Your task to perform on an android device: Open accessibility settings Image 0: 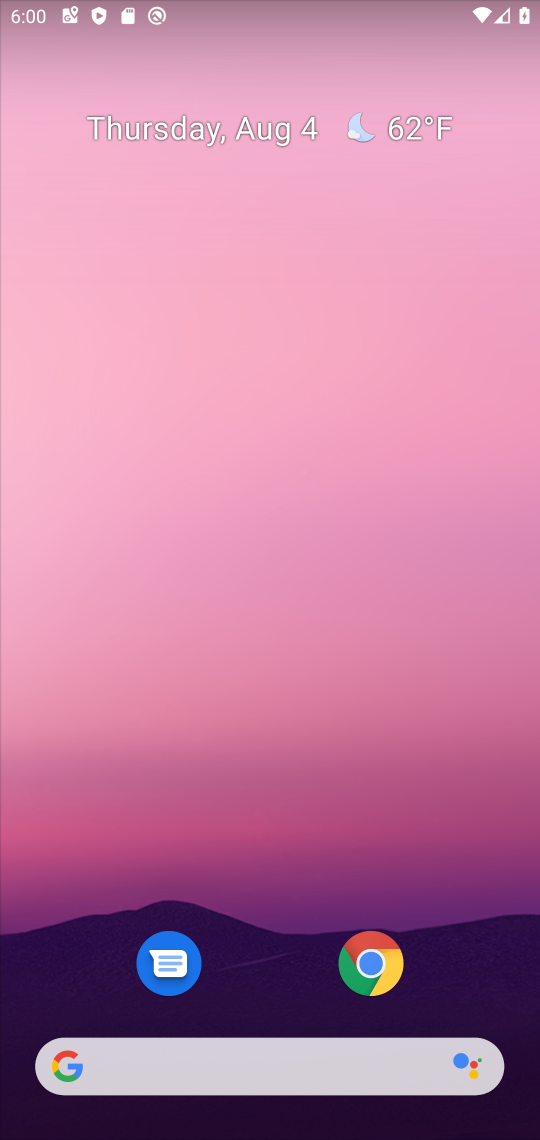
Step 0: drag from (280, 824) to (245, 53)
Your task to perform on an android device: Open accessibility settings Image 1: 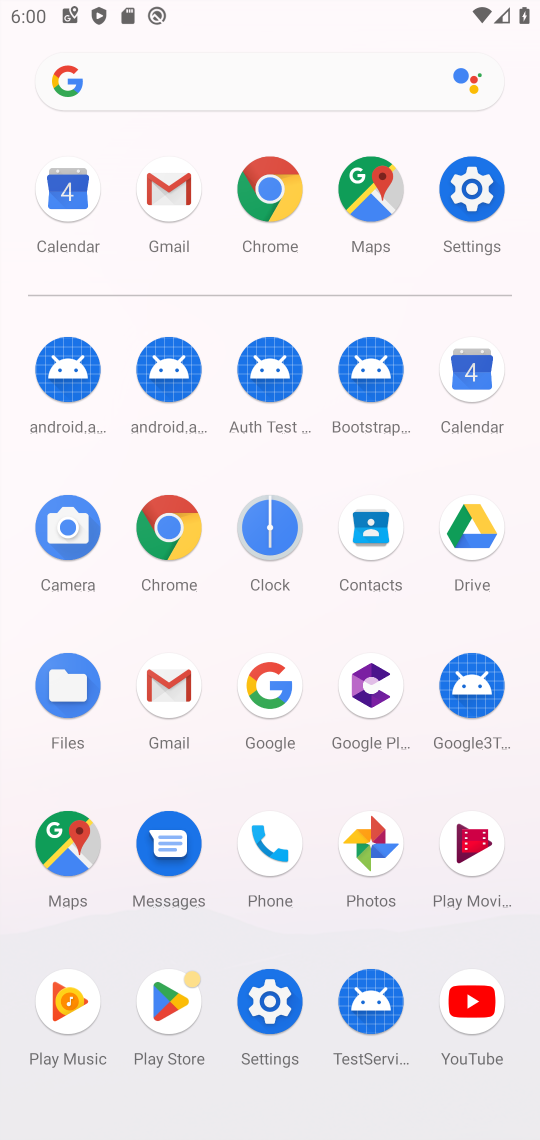
Step 1: click (474, 185)
Your task to perform on an android device: Open accessibility settings Image 2: 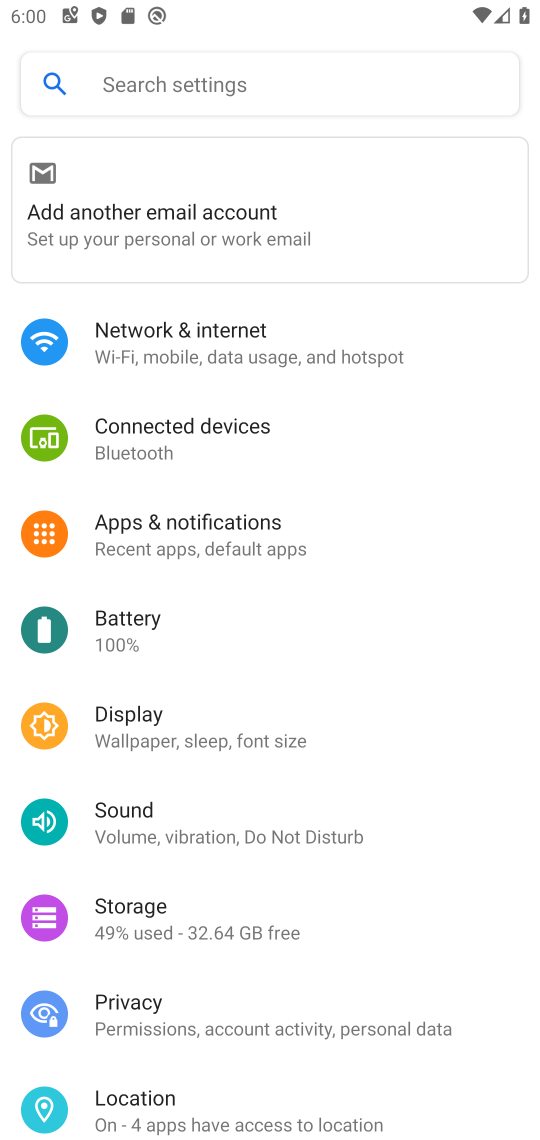
Step 2: drag from (345, 1080) to (294, 335)
Your task to perform on an android device: Open accessibility settings Image 3: 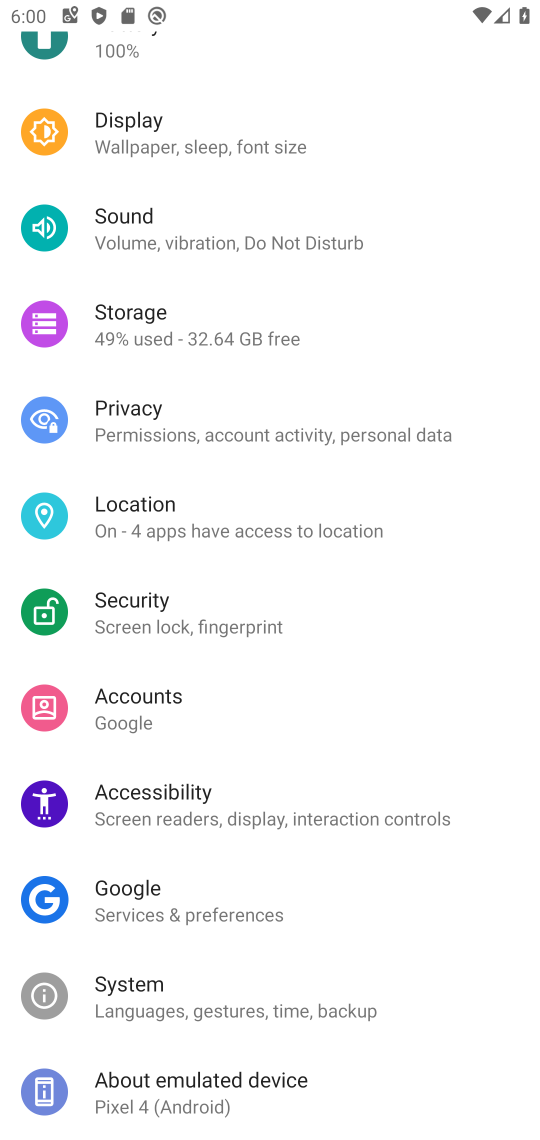
Step 3: click (162, 790)
Your task to perform on an android device: Open accessibility settings Image 4: 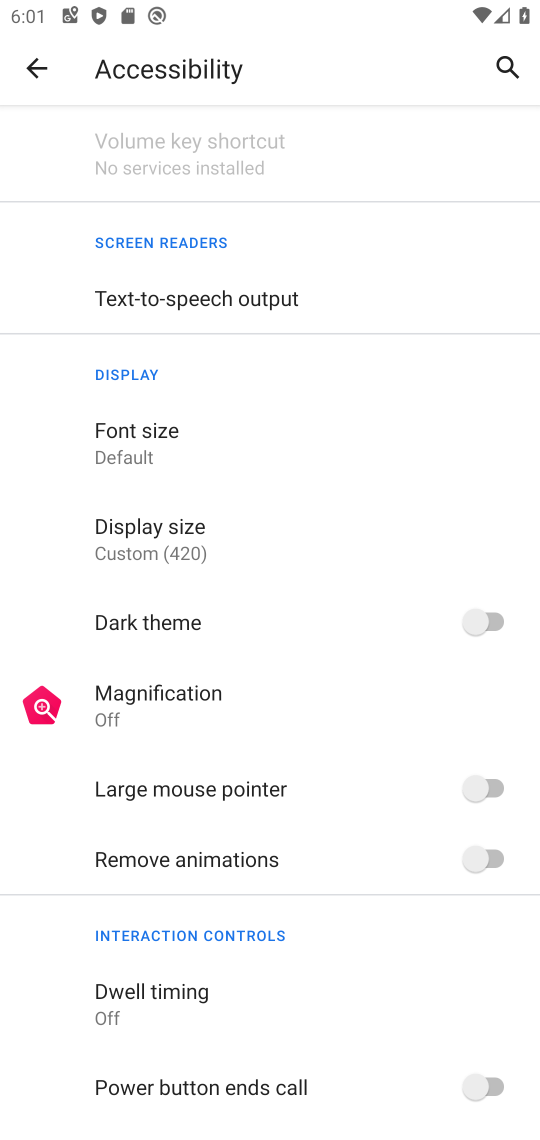
Step 4: task complete